Your task to perform on an android device: turn smart compose on in the gmail app Image 0: 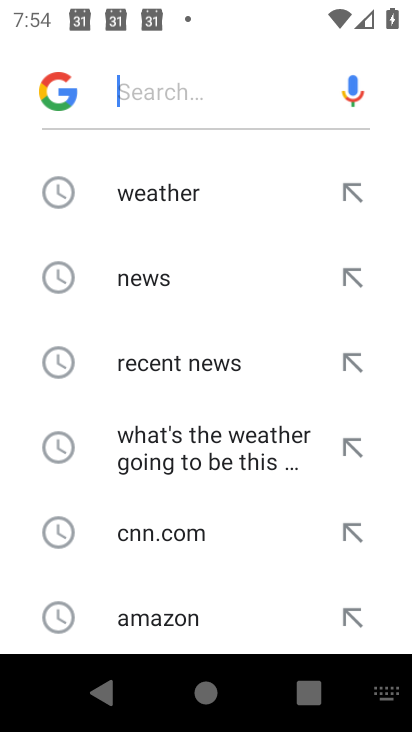
Step 0: press home button
Your task to perform on an android device: turn smart compose on in the gmail app Image 1: 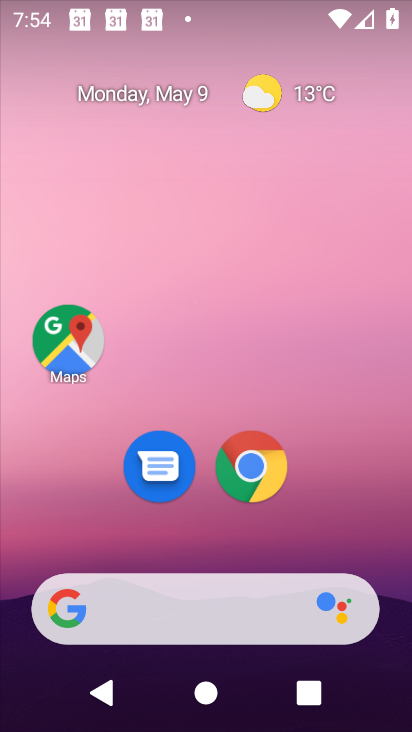
Step 1: drag from (325, 551) to (326, 232)
Your task to perform on an android device: turn smart compose on in the gmail app Image 2: 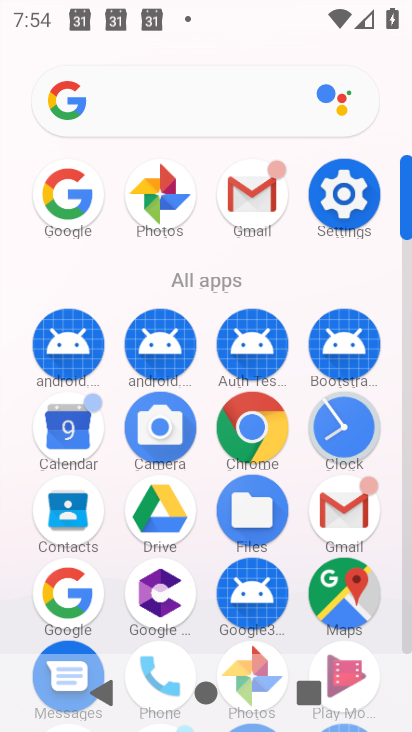
Step 2: click (250, 180)
Your task to perform on an android device: turn smart compose on in the gmail app Image 3: 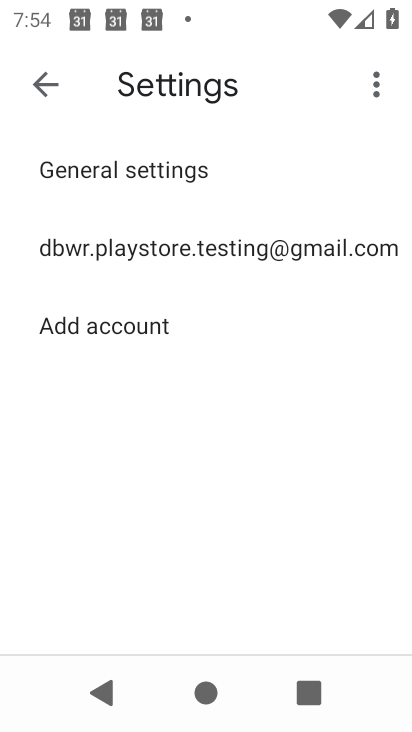
Step 3: click (188, 238)
Your task to perform on an android device: turn smart compose on in the gmail app Image 4: 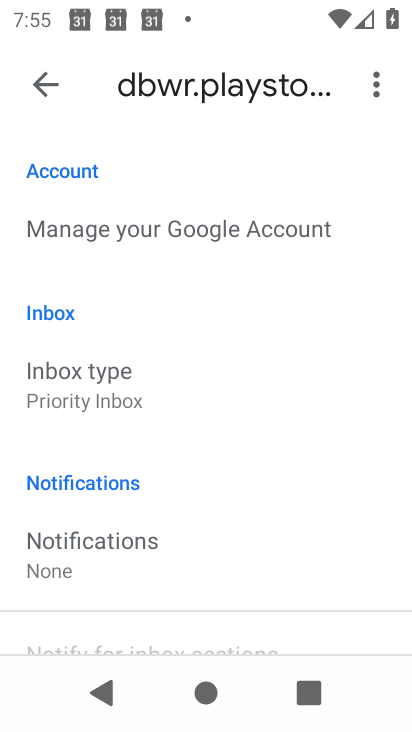
Step 4: task complete